Your task to perform on an android device: find photos in the google photos app Image 0: 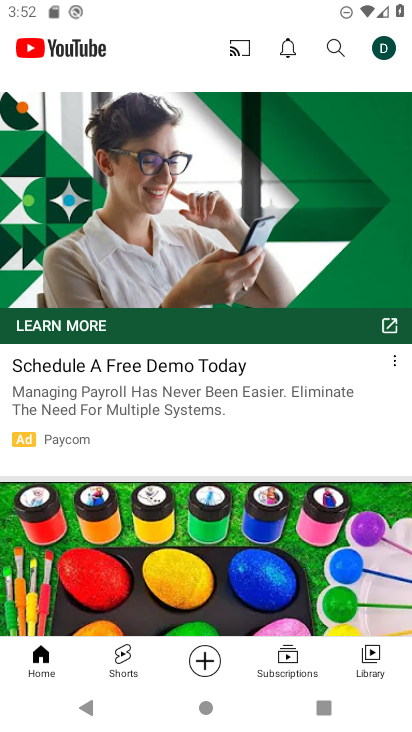
Step 0: press home button
Your task to perform on an android device: find photos in the google photos app Image 1: 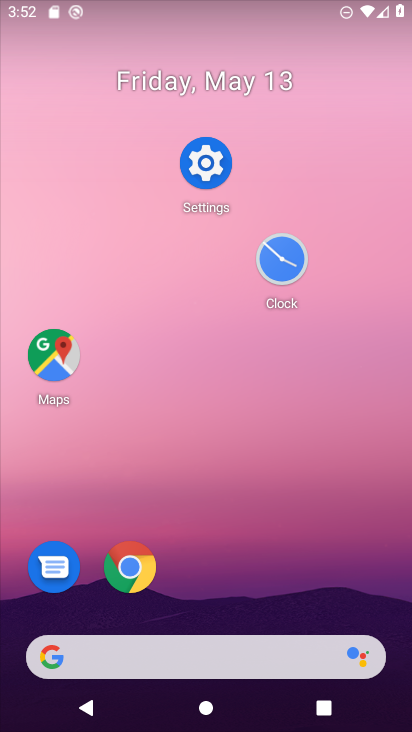
Step 1: drag from (216, 583) to (221, 117)
Your task to perform on an android device: find photos in the google photos app Image 2: 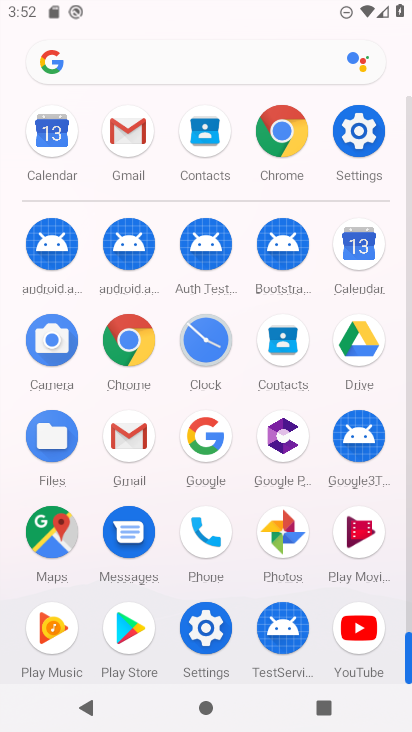
Step 2: click (284, 527)
Your task to perform on an android device: find photos in the google photos app Image 3: 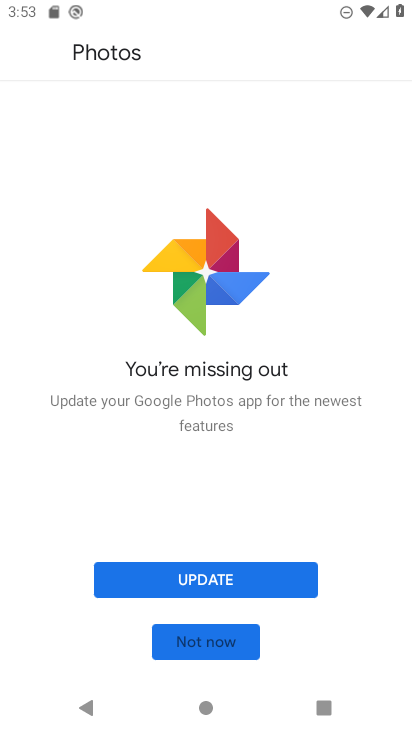
Step 3: click (281, 583)
Your task to perform on an android device: find photos in the google photos app Image 4: 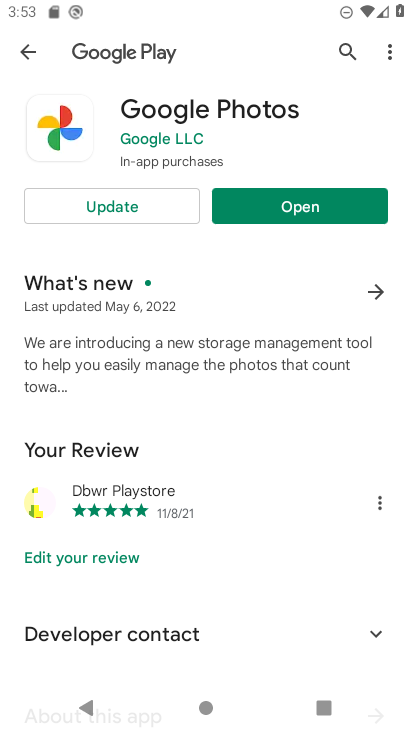
Step 4: click (170, 216)
Your task to perform on an android device: find photos in the google photos app Image 5: 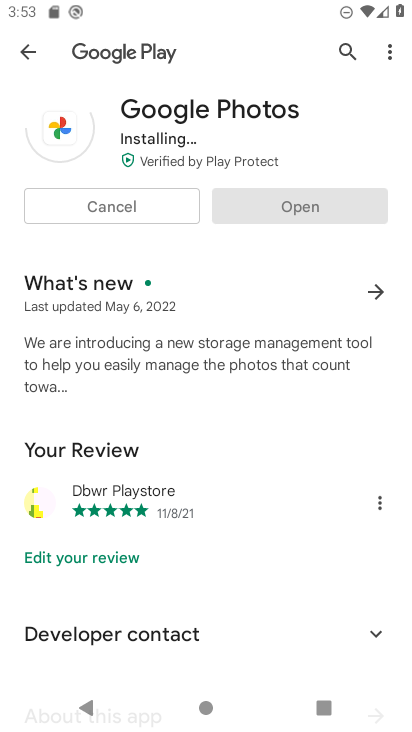
Step 5: click (338, 206)
Your task to perform on an android device: find photos in the google photos app Image 6: 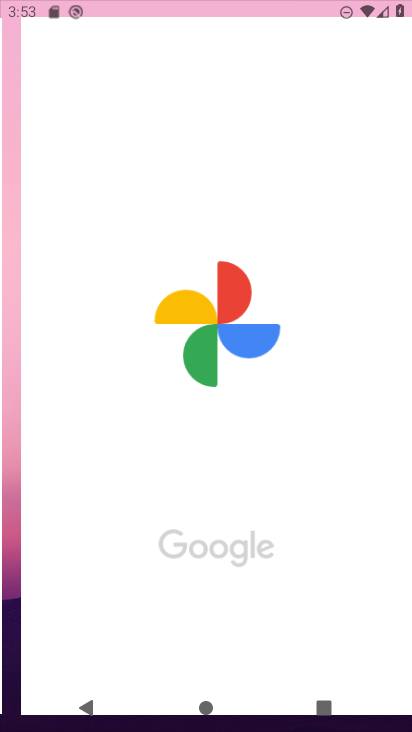
Step 6: click (338, 206)
Your task to perform on an android device: find photos in the google photos app Image 7: 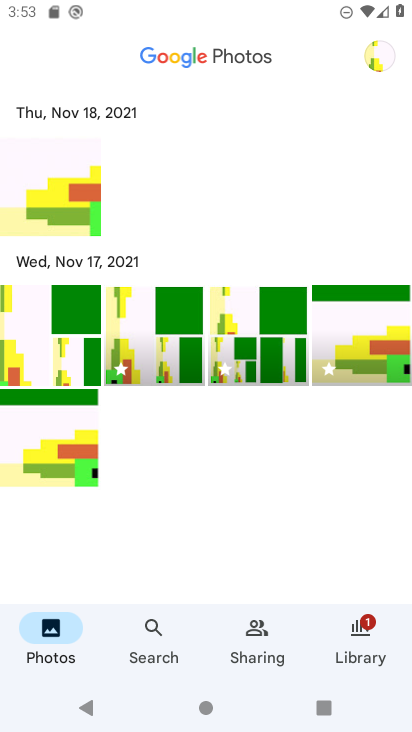
Step 7: task complete